Your task to perform on an android device: Open maps Image 0: 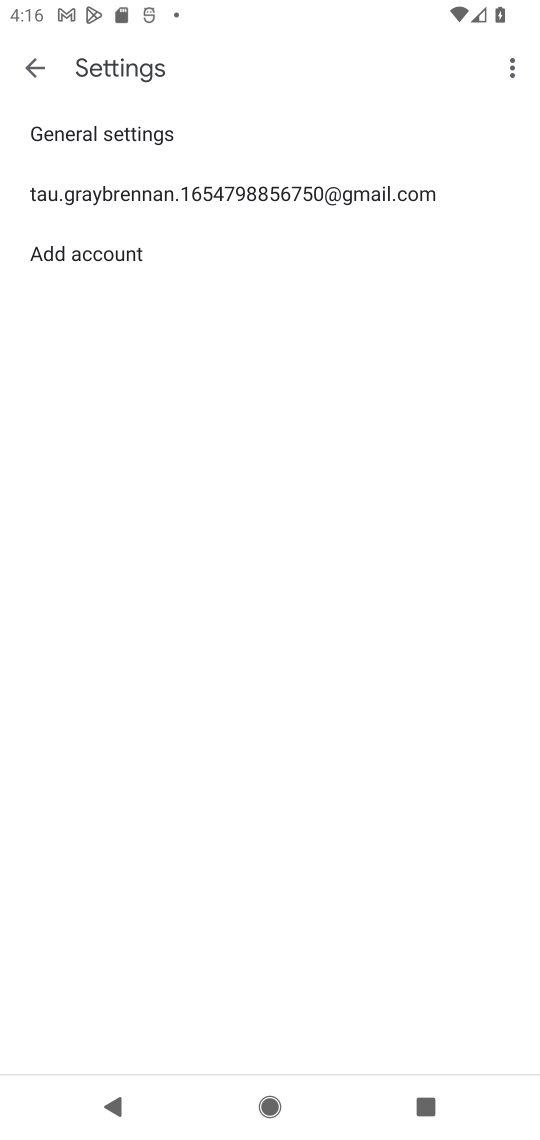
Step 0: press home button
Your task to perform on an android device: Open maps Image 1: 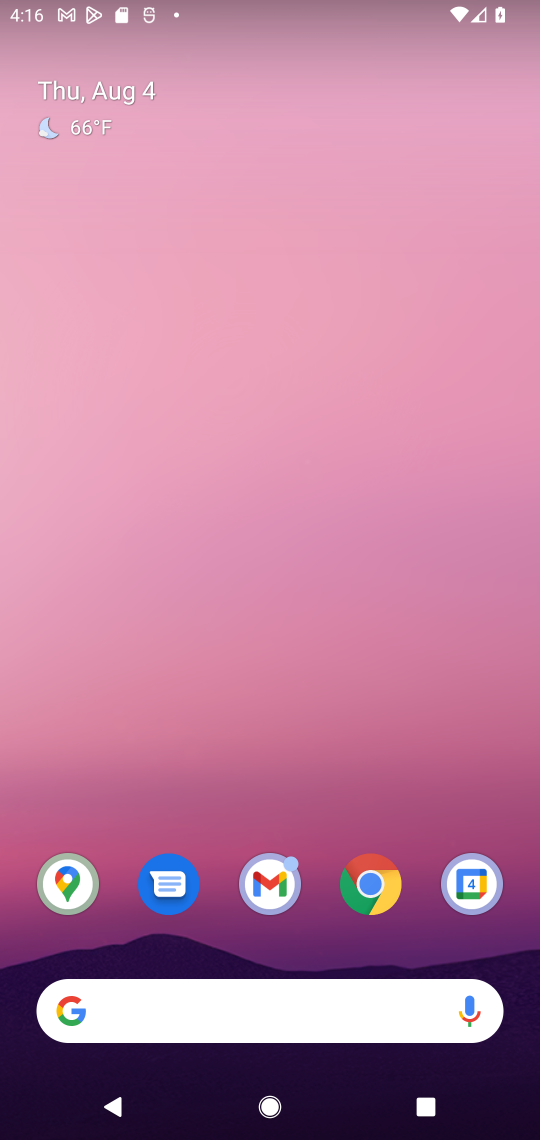
Step 1: click (88, 899)
Your task to perform on an android device: Open maps Image 2: 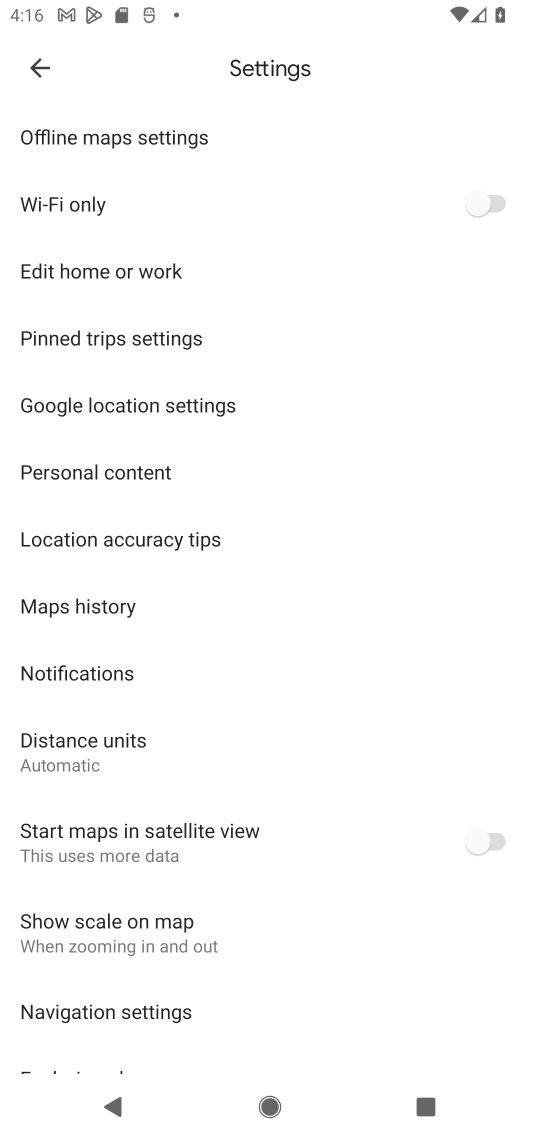
Step 2: task complete